Your task to perform on an android device: Do I have any events this weekend? Image 0: 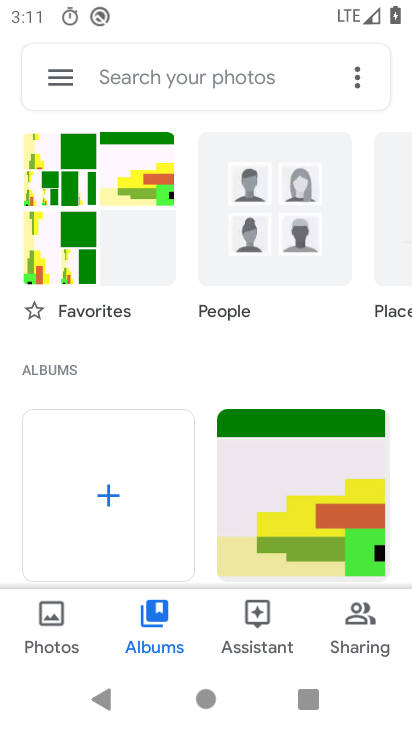
Step 0: press home button
Your task to perform on an android device: Do I have any events this weekend? Image 1: 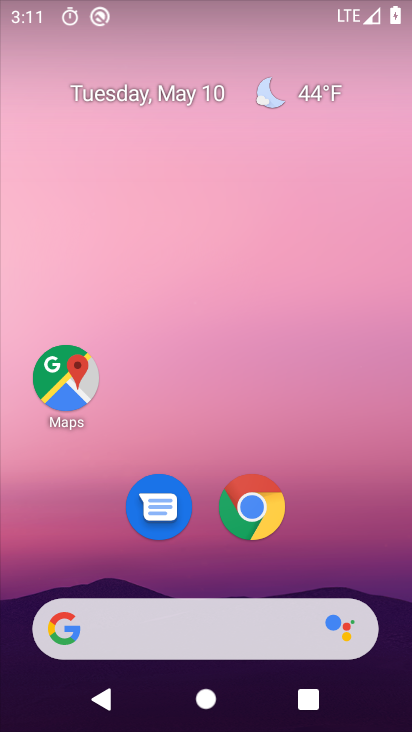
Step 1: click (139, 567)
Your task to perform on an android device: Do I have any events this weekend? Image 2: 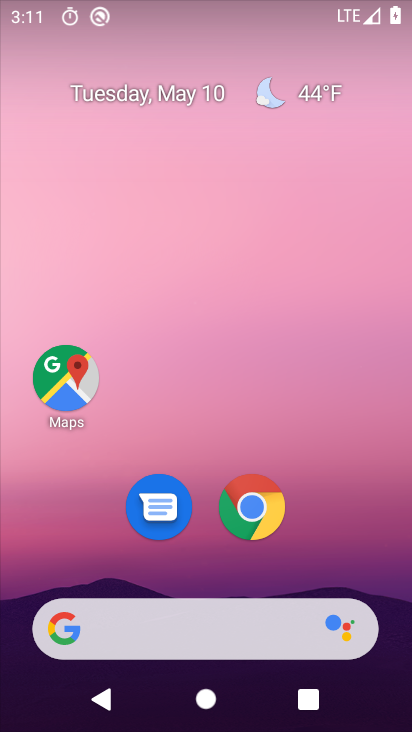
Step 2: drag from (145, 591) to (162, 288)
Your task to perform on an android device: Do I have any events this weekend? Image 3: 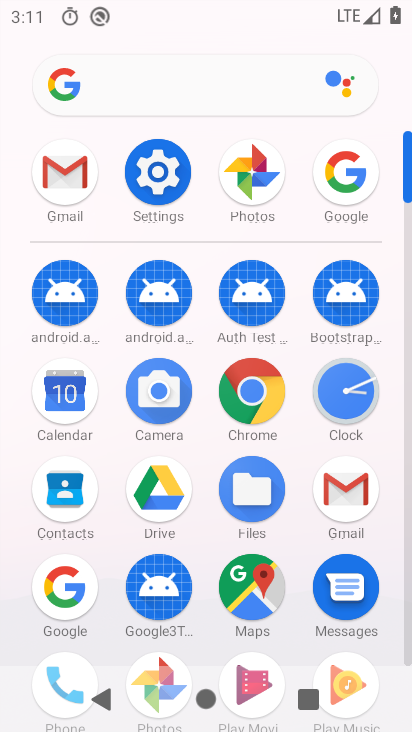
Step 3: click (60, 399)
Your task to perform on an android device: Do I have any events this weekend? Image 4: 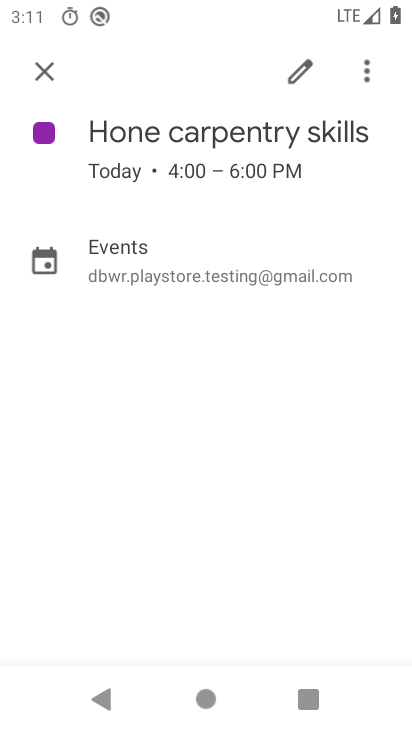
Step 4: click (46, 73)
Your task to perform on an android device: Do I have any events this weekend? Image 5: 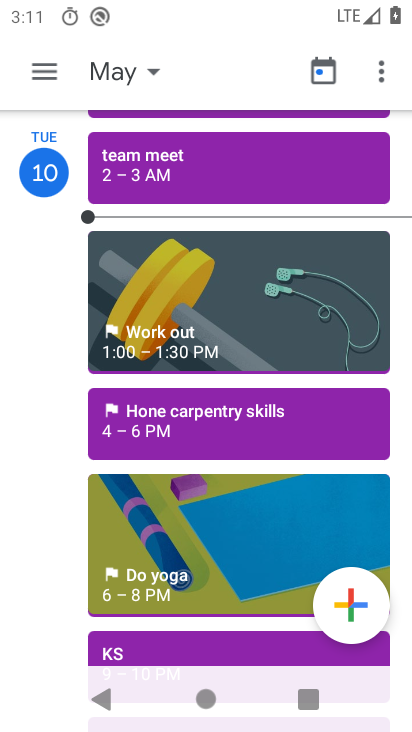
Step 5: click (127, 78)
Your task to perform on an android device: Do I have any events this weekend? Image 6: 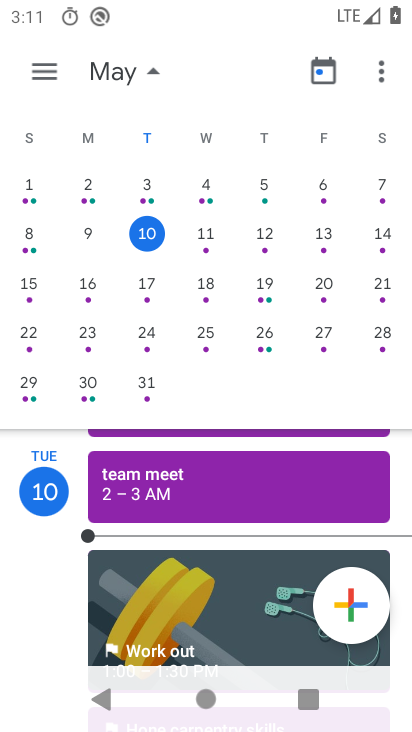
Step 6: click (330, 239)
Your task to perform on an android device: Do I have any events this weekend? Image 7: 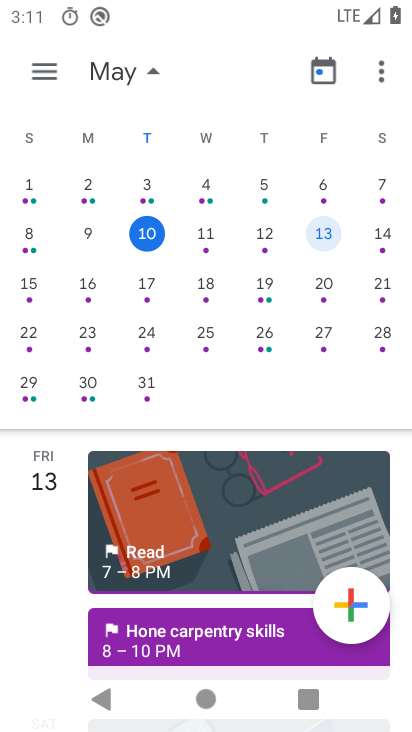
Step 7: click (373, 240)
Your task to perform on an android device: Do I have any events this weekend? Image 8: 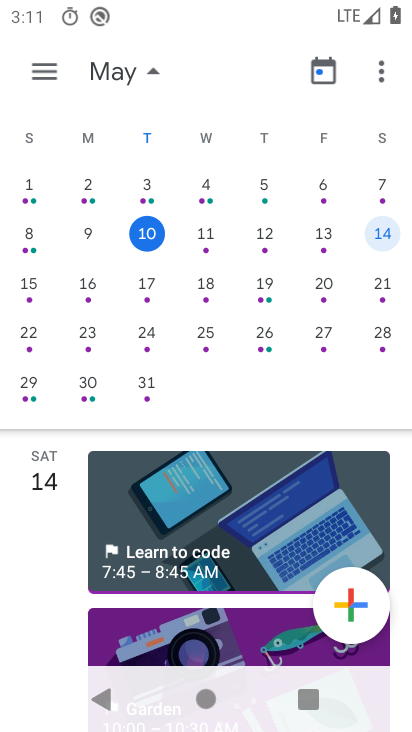
Step 8: drag from (183, 629) to (169, 263)
Your task to perform on an android device: Do I have any events this weekend? Image 9: 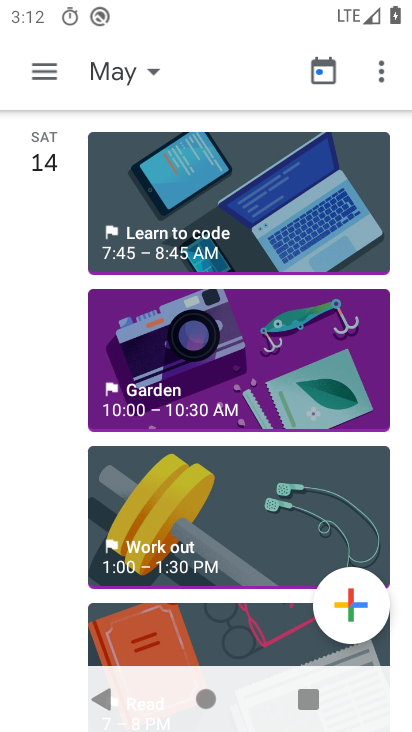
Step 9: drag from (207, 645) to (195, 269)
Your task to perform on an android device: Do I have any events this weekend? Image 10: 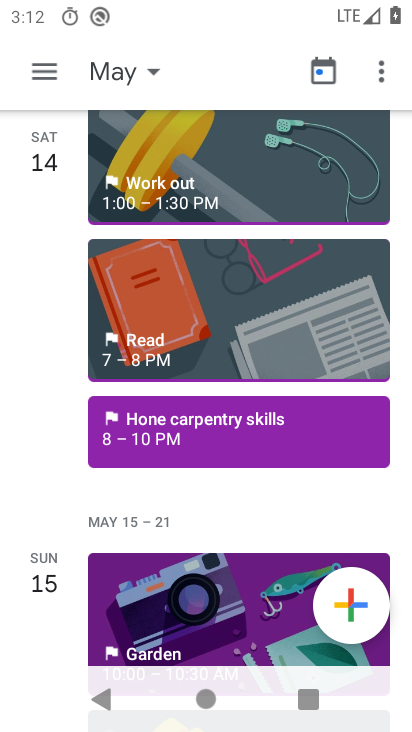
Step 10: drag from (217, 630) to (231, 316)
Your task to perform on an android device: Do I have any events this weekend? Image 11: 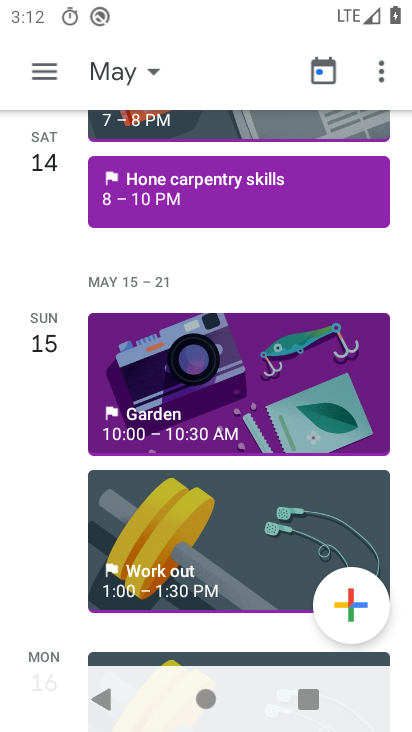
Step 11: click (205, 416)
Your task to perform on an android device: Do I have any events this weekend? Image 12: 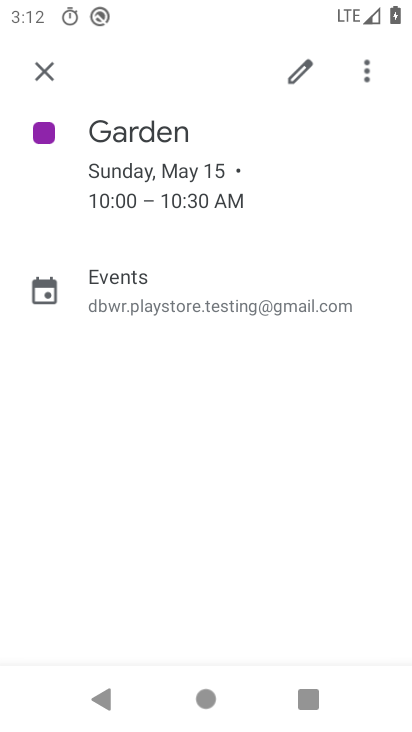
Step 12: task complete